Your task to perform on an android device: turn vacation reply on in the gmail app Image 0: 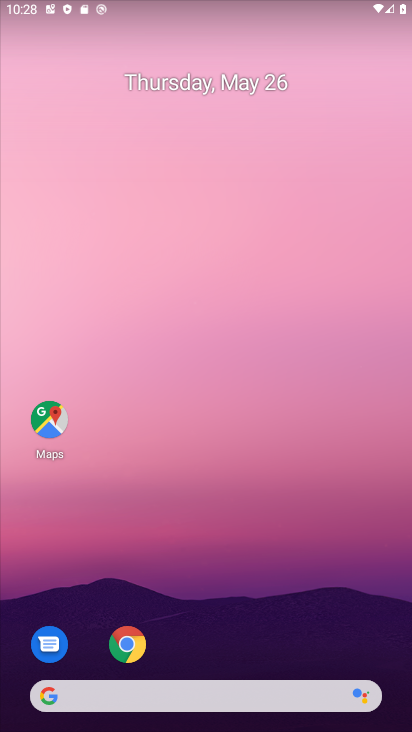
Step 0: drag from (339, 640) to (261, 72)
Your task to perform on an android device: turn vacation reply on in the gmail app Image 1: 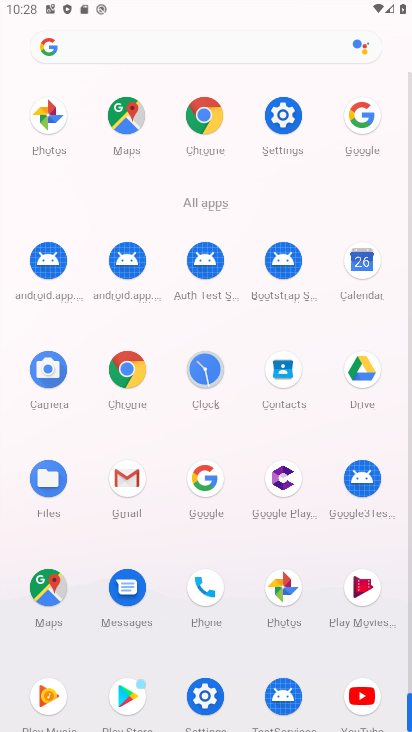
Step 1: click (125, 482)
Your task to perform on an android device: turn vacation reply on in the gmail app Image 2: 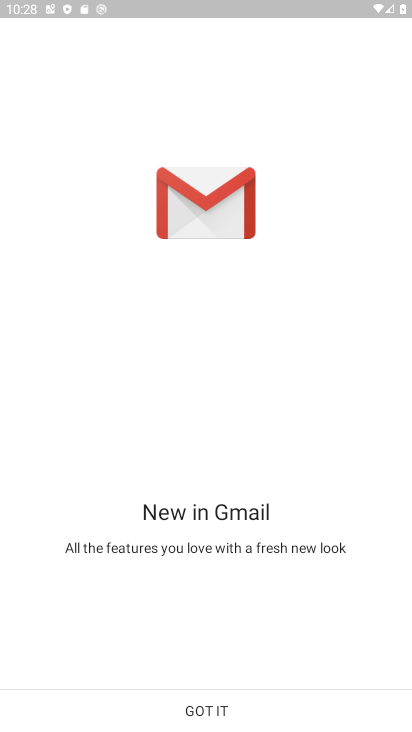
Step 2: click (211, 706)
Your task to perform on an android device: turn vacation reply on in the gmail app Image 3: 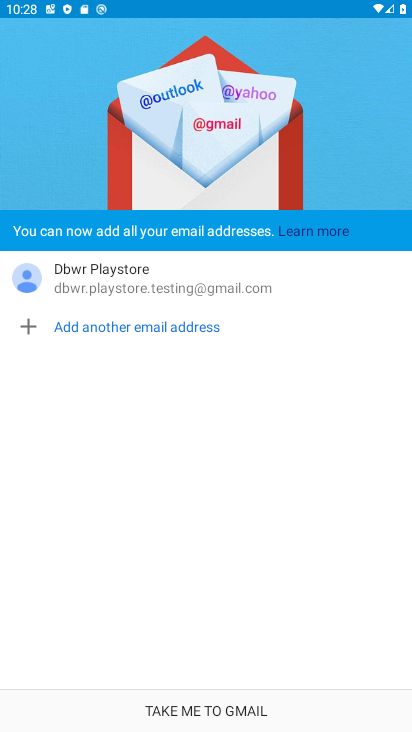
Step 3: click (211, 706)
Your task to perform on an android device: turn vacation reply on in the gmail app Image 4: 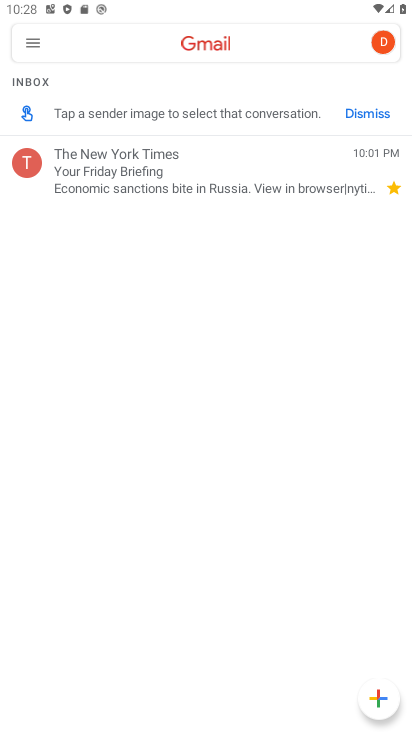
Step 4: click (34, 54)
Your task to perform on an android device: turn vacation reply on in the gmail app Image 5: 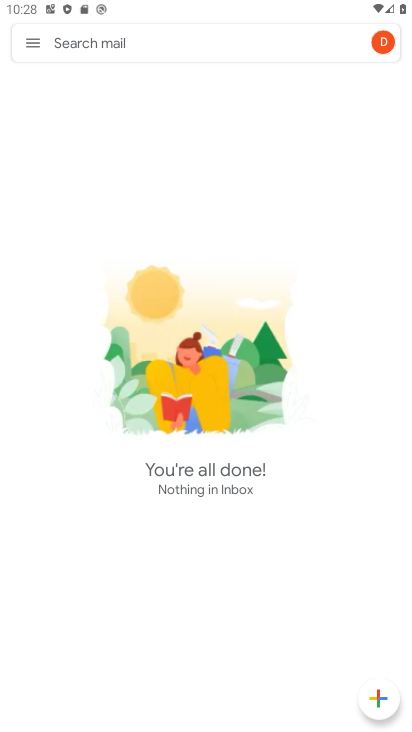
Step 5: click (35, 37)
Your task to perform on an android device: turn vacation reply on in the gmail app Image 6: 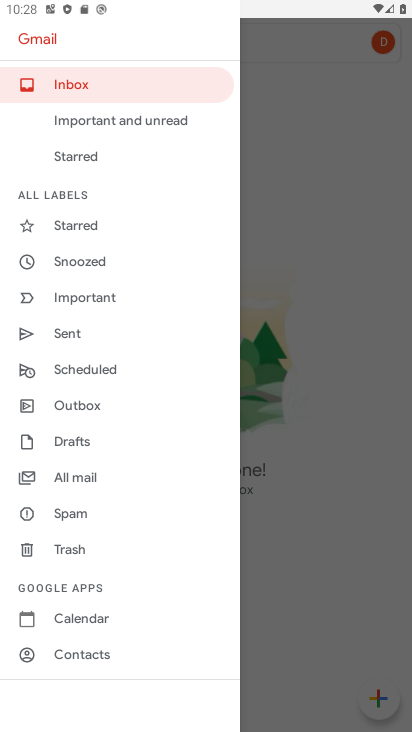
Step 6: drag from (91, 621) to (102, 132)
Your task to perform on an android device: turn vacation reply on in the gmail app Image 7: 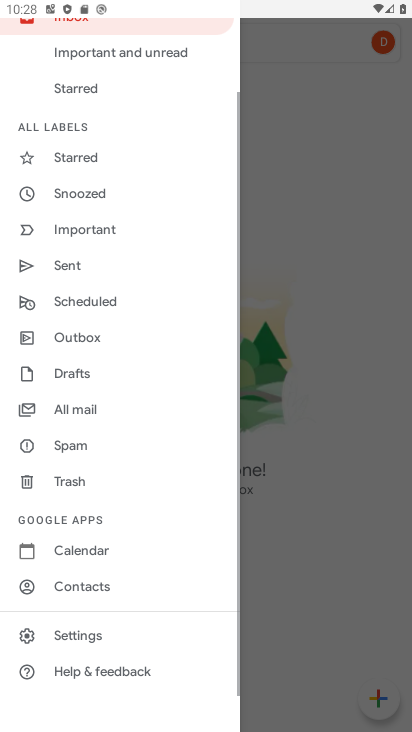
Step 7: click (69, 631)
Your task to perform on an android device: turn vacation reply on in the gmail app Image 8: 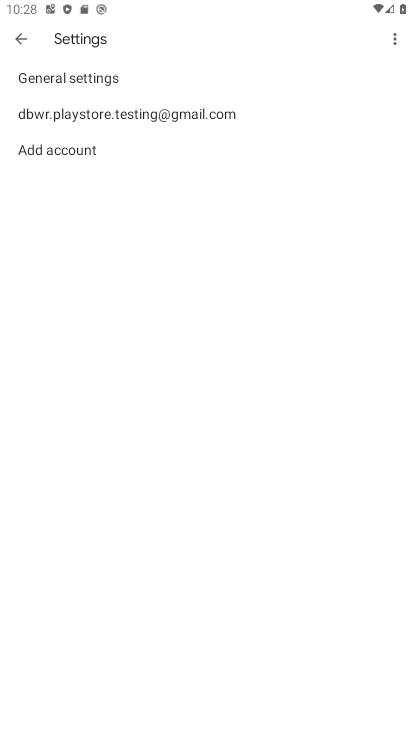
Step 8: click (158, 116)
Your task to perform on an android device: turn vacation reply on in the gmail app Image 9: 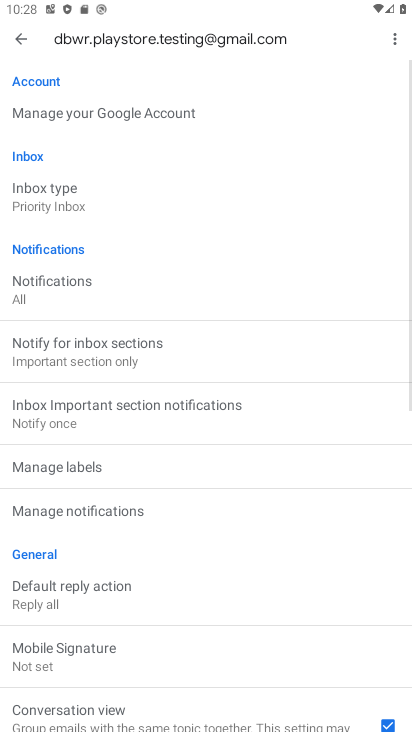
Step 9: drag from (166, 662) to (164, 201)
Your task to perform on an android device: turn vacation reply on in the gmail app Image 10: 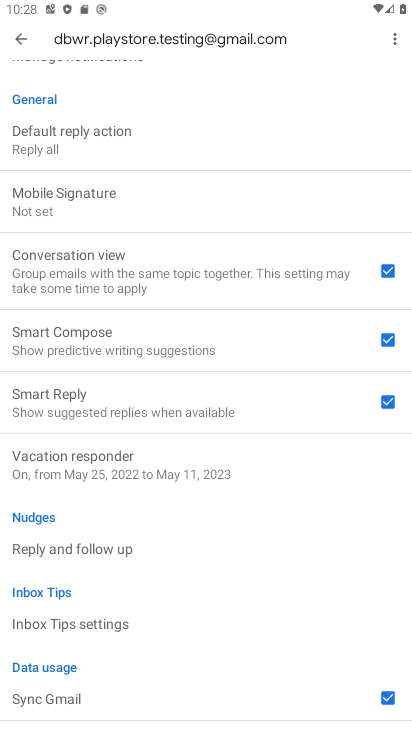
Step 10: click (193, 460)
Your task to perform on an android device: turn vacation reply on in the gmail app Image 11: 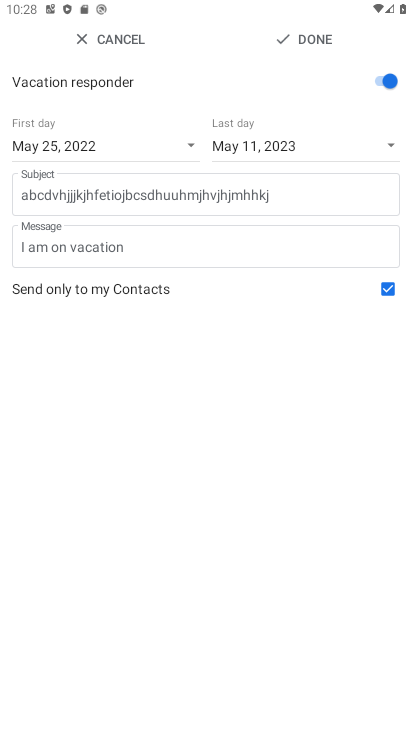
Step 11: task complete